Your task to perform on an android device: change notifications settings Image 0: 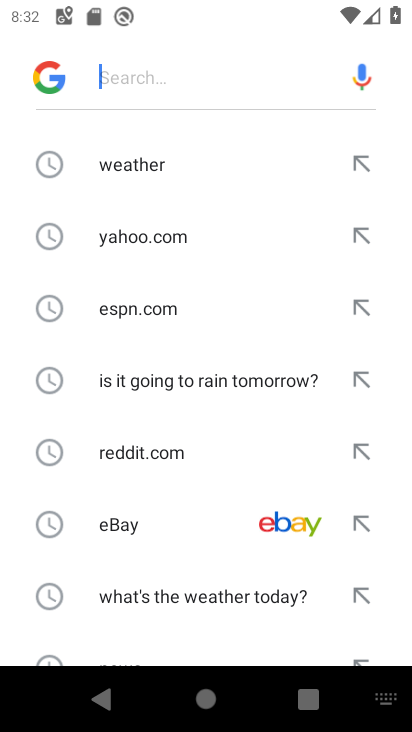
Step 0: press home button
Your task to perform on an android device: change notifications settings Image 1: 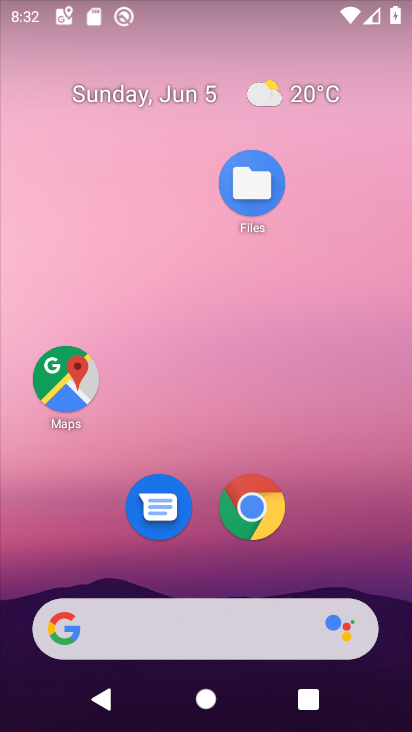
Step 1: drag from (223, 582) to (235, 66)
Your task to perform on an android device: change notifications settings Image 2: 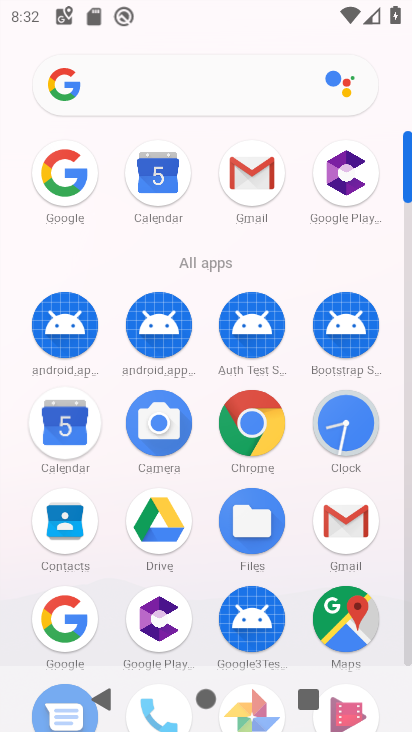
Step 2: drag from (194, 577) to (148, 23)
Your task to perform on an android device: change notifications settings Image 3: 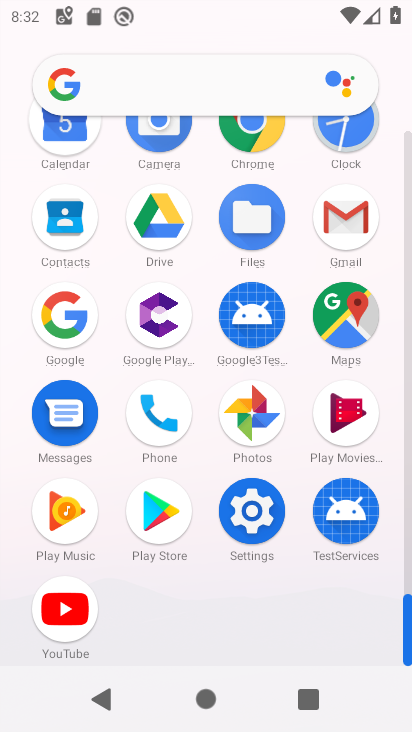
Step 3: click (240, 507)
Your task to perform on an android device: change notifications settings Image 4: 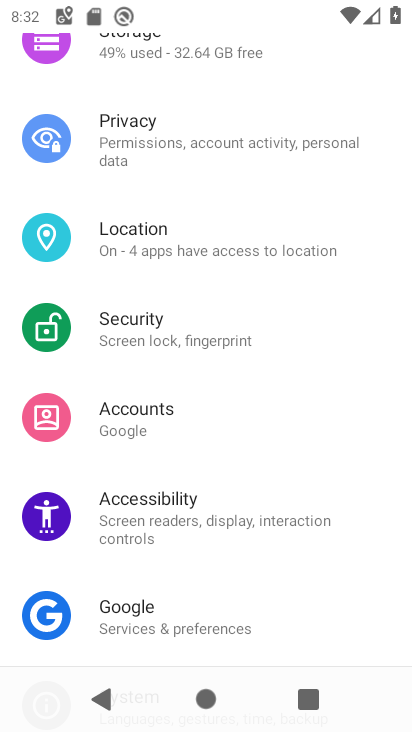
Step 4: drag from (227, 100) to (198, 711)
Your task to perform on an android device: change notifications settings Image 5: 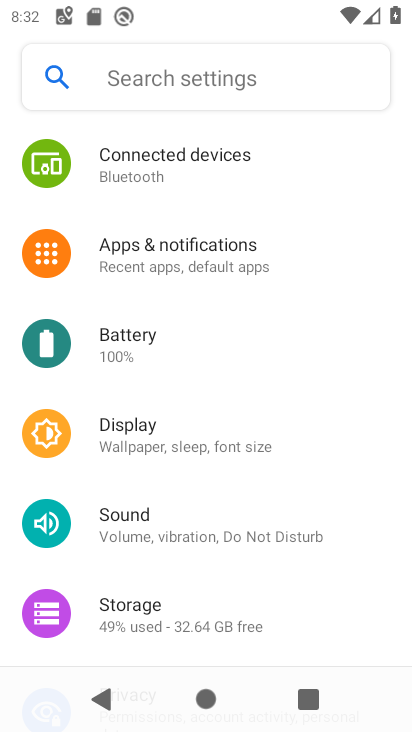
Step 5: click (213, 268)
Your task to perform on an android device: change notifications settings Image 6: 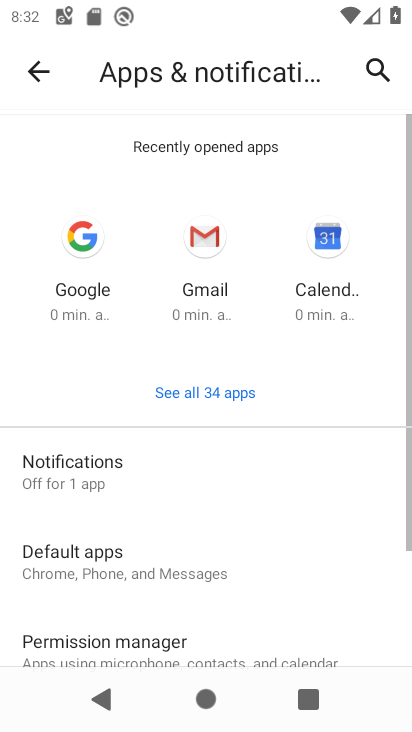
Step 6: click (102, 472)
Your task to perform on an android device: change notifications settings Image 7: 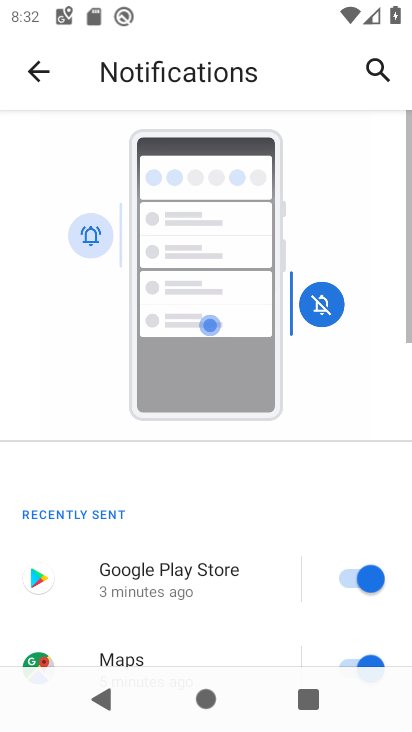
Step 7: task complete